Your task to perform on an android device: What's the weather? Image 0: 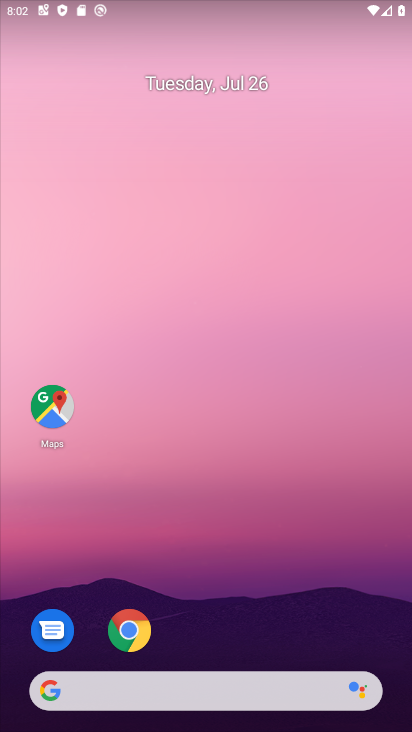
Step 0: click (266, 695)
Your task to perform on an android device: What's the weather? Image 1: 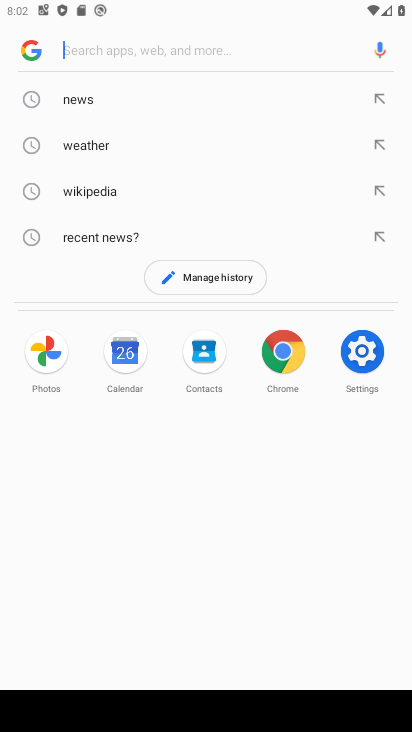
Step 1: click (120, 141)
Your task to perform on an android device: What's the weather? Image 2: 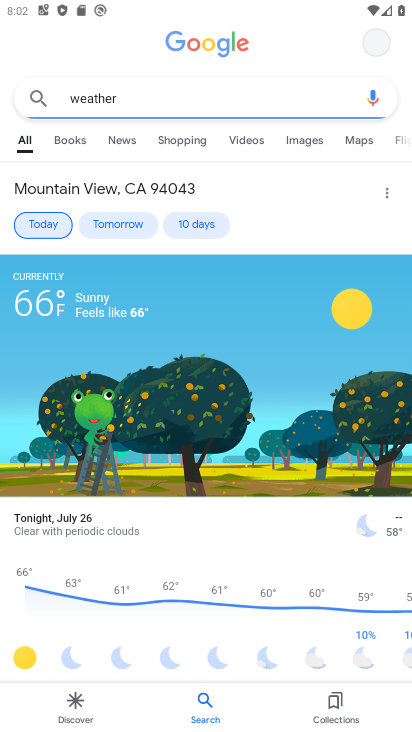
Step 2: task complete